Your task to perform on an android device: Check the settings for the Pandora app Image 0: 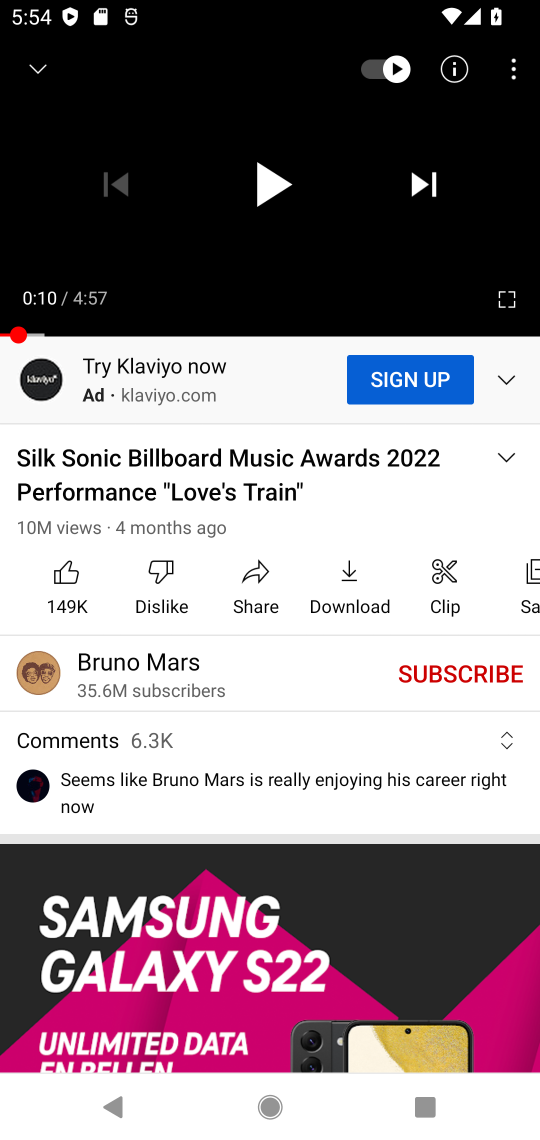
Step 0: click (266, 1108)
Your task to perform on an android device: Check the settings for the Pandora app Image 1: 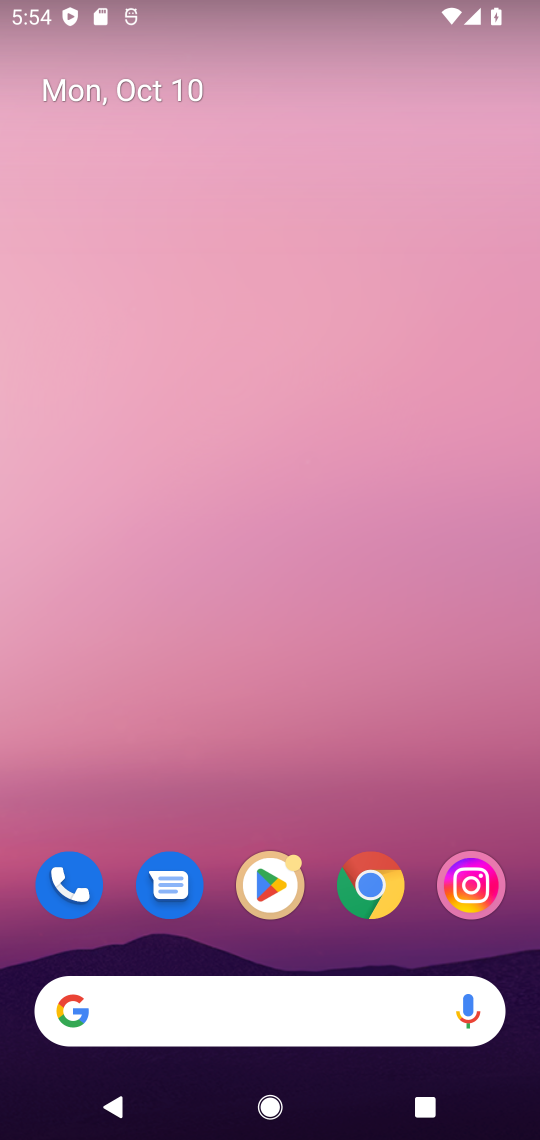
Step 1: click (282, 880)
Your task to perform on an android device: Check the settings for the Pandora app Image 2: 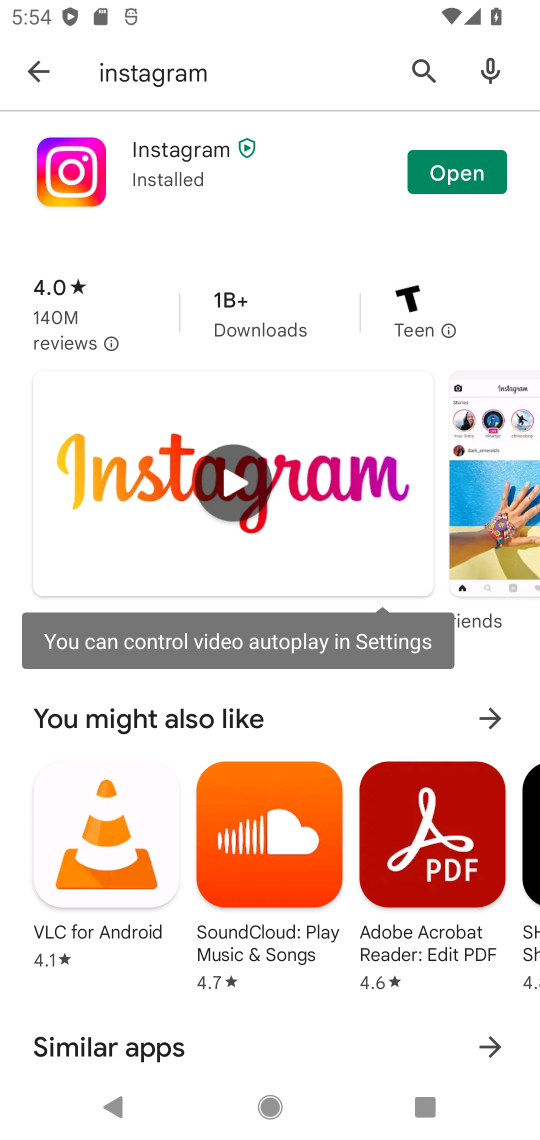
Step 2: click (37, 75)
Your task to perform on an android device: Check the settings for the Pandora app Image 3: 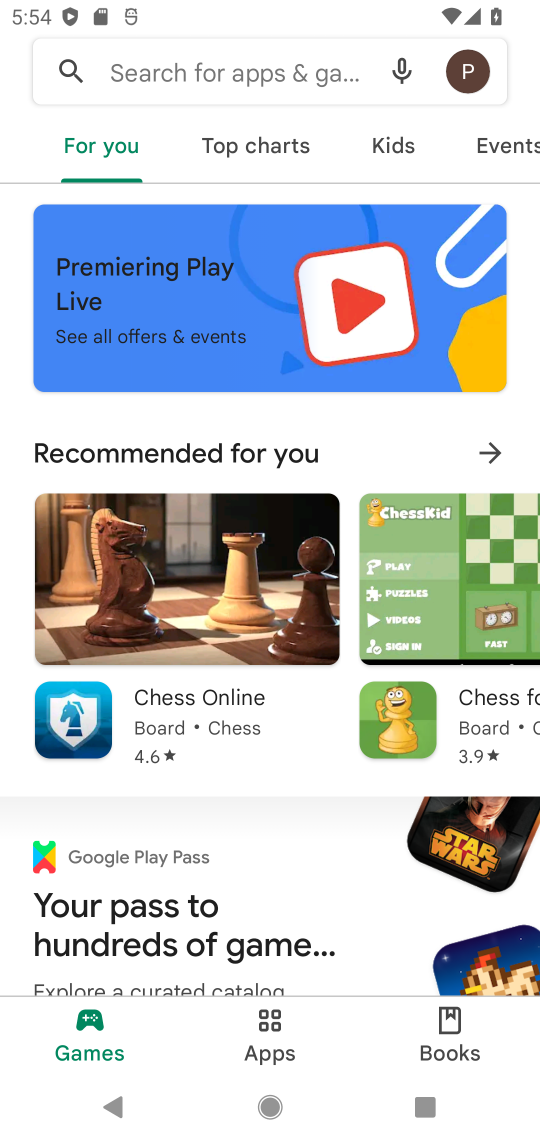
Step 3: click (330, 76)
Your task to perform on an android device: Check the settings for the Pandora app Image 4: 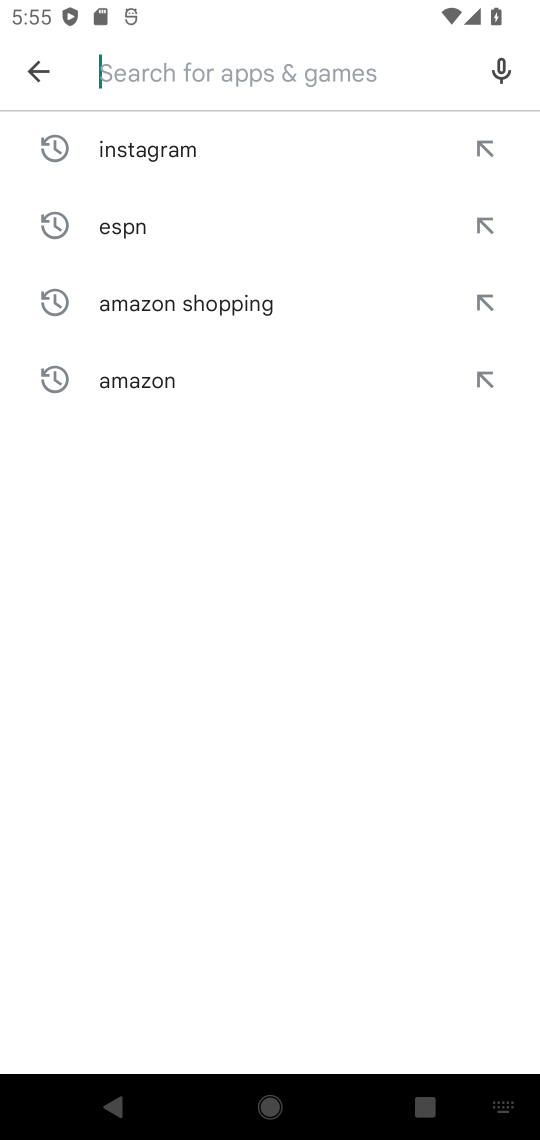
Step 4: type "pandora"
Your task to perform on an android device: Check the settings for the Pandora app Image 5: 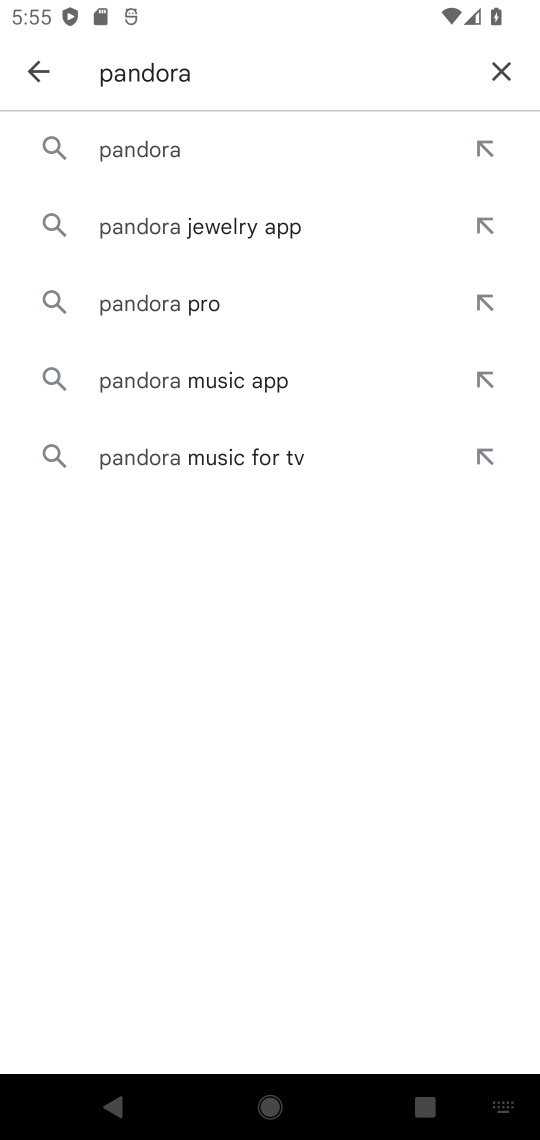
Step 5: click (139, 156)
Your task to perform on an android device: Check the settings for the Pandora app Image 6: 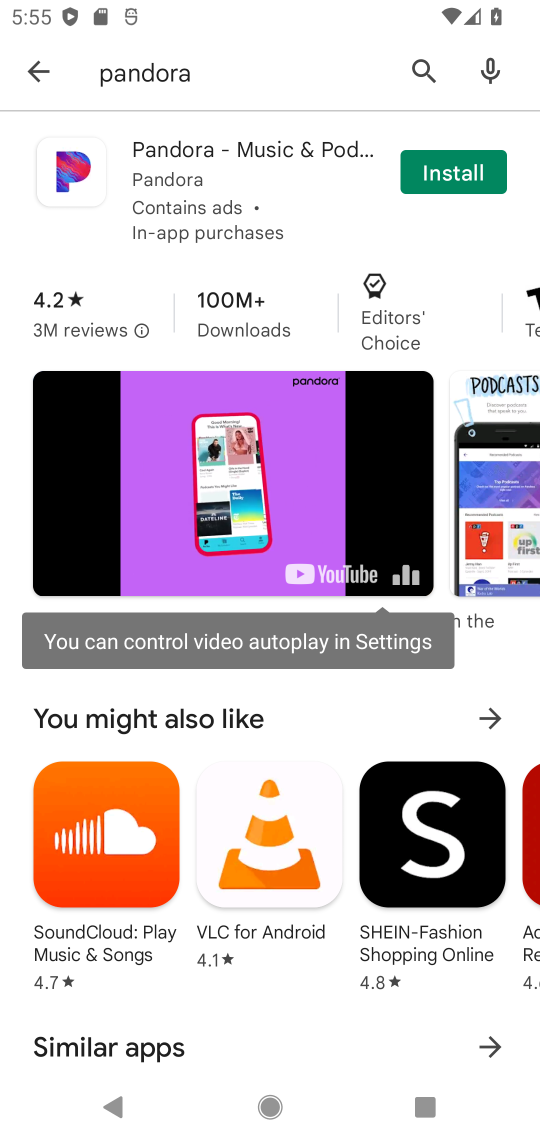
Step 6: click (478, 177)
Your task to perform on an android device: Check the settings for the Pandora app Image 7: 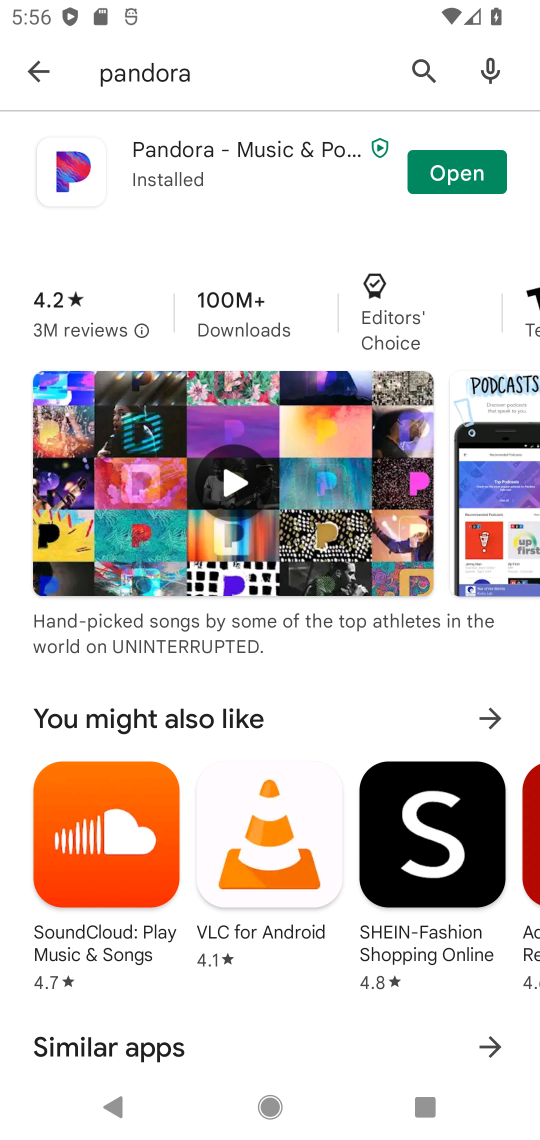
Step 7: click (461, 175)
Your task to perform on an android device: Check the settings for the Pandora app Image 8: 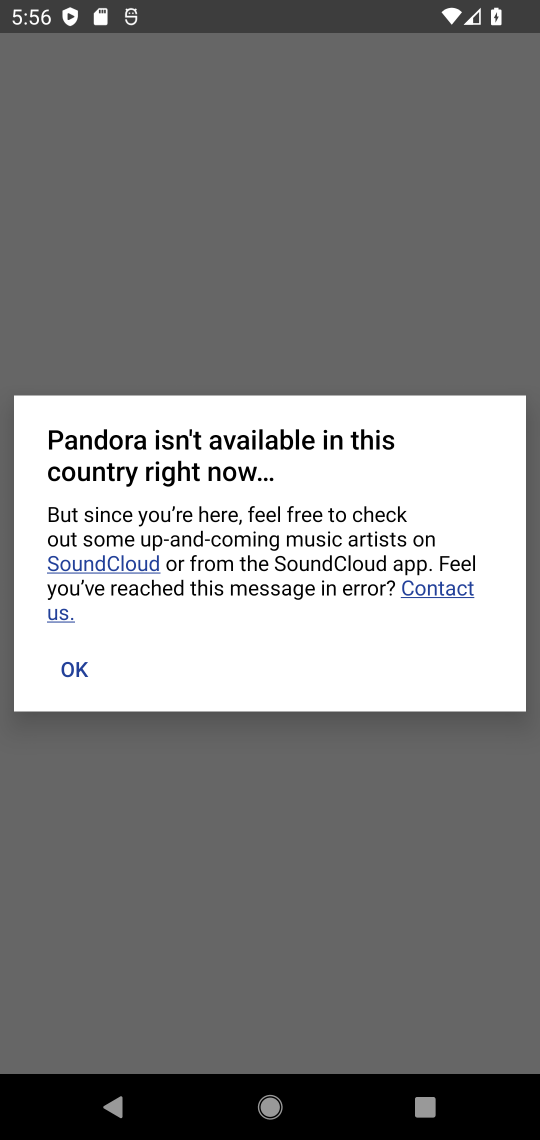
Step 8: click (71, 666)
Your task to perform on an android device: Check the settings for the Pandora app Image 9: 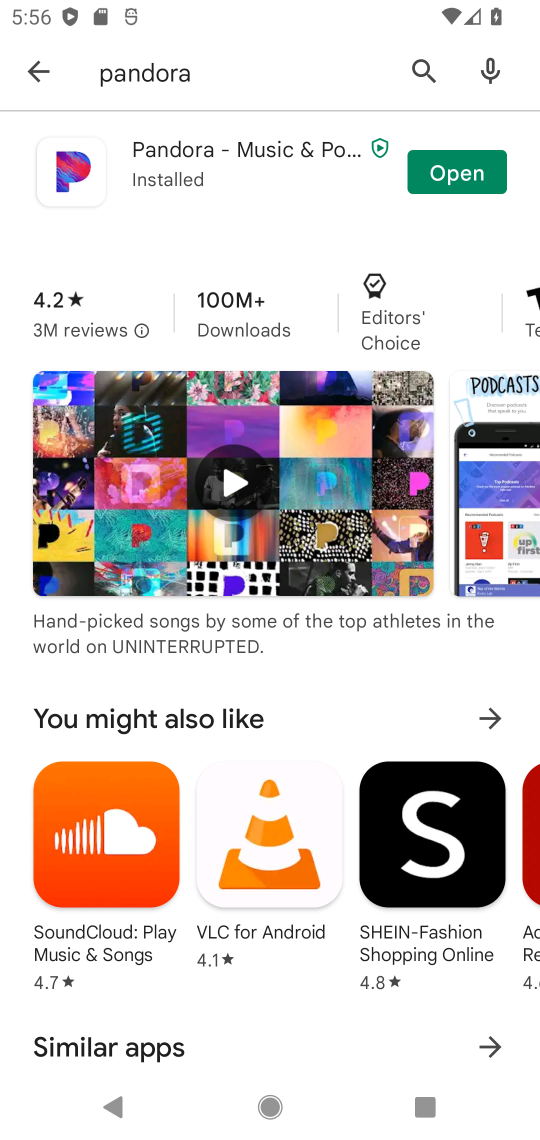
Step 9: click (430, 178)
Your task to perform on an android device: Check the settings for the Pandora app Image 10: 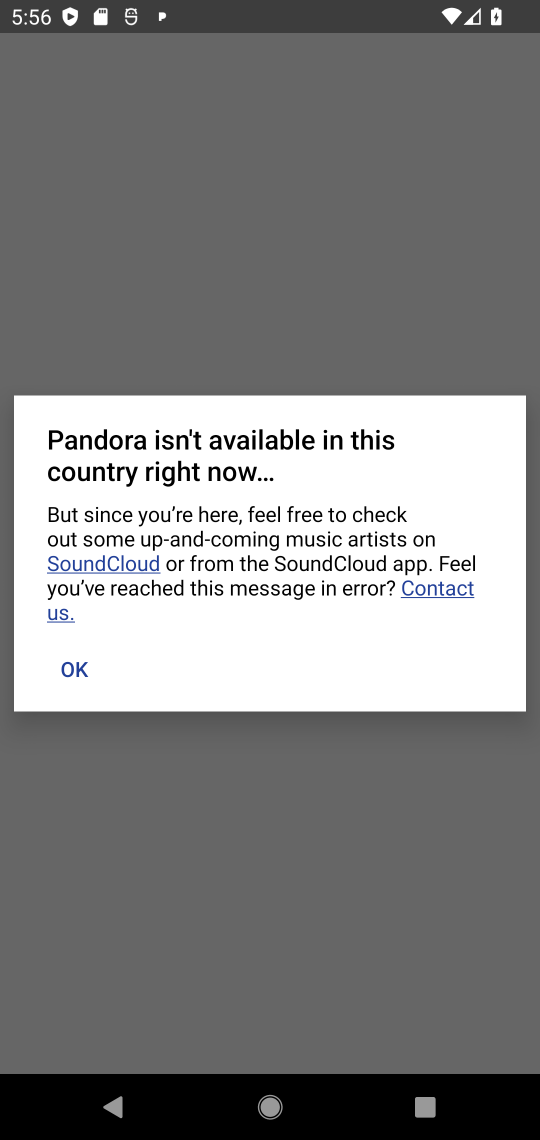
Step 10: click (76, 667)
Your task to perform on an android device: Check the settings for the Pandora app Image 11: 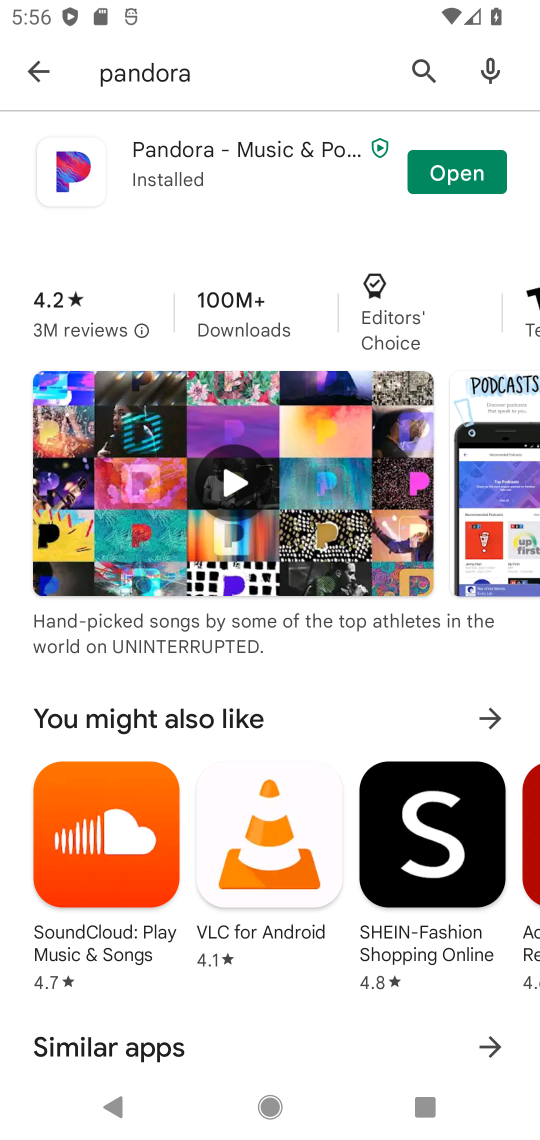
Step 11: click (457, 169)
Your task to perform on an android device: Check the settings for the Pandora app Image 12: 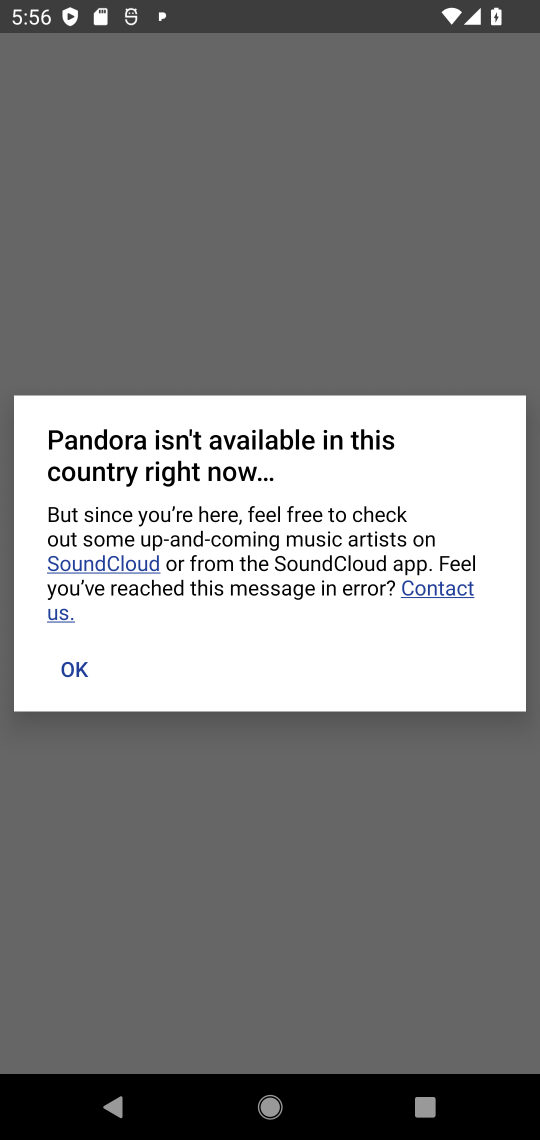
Step 12: click (69, 675)
Your task to perform on an android device: Check the settings for the Pandora app Image 13: 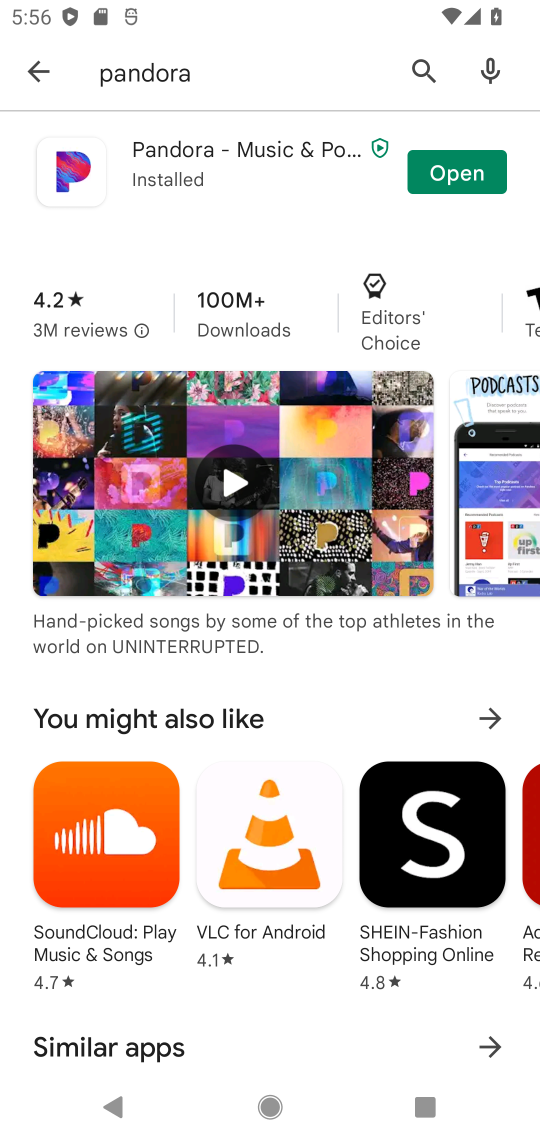
Step 13: task complete